Your task to perform on an android device: Open the web browser Image 0: 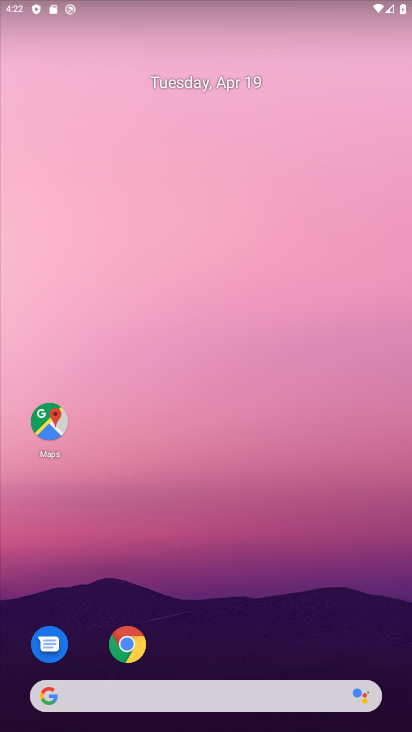
Step 0: click (122, 631)
Your task to perform on an android device: Open the web browser Image 1: 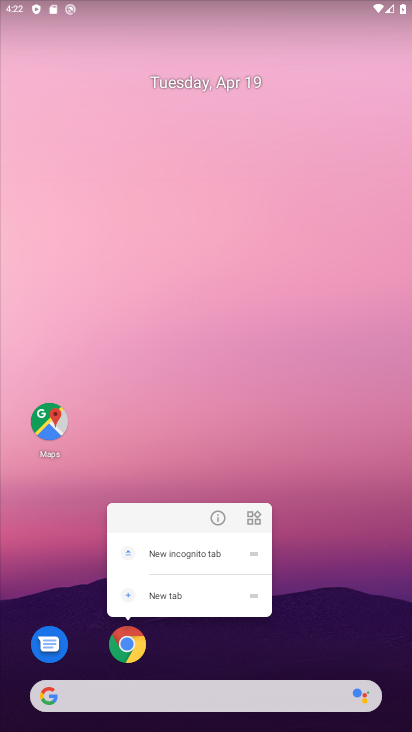
Step 1: click (140, 660)
Your task to perform on an android device: Open the web browser Image 2: 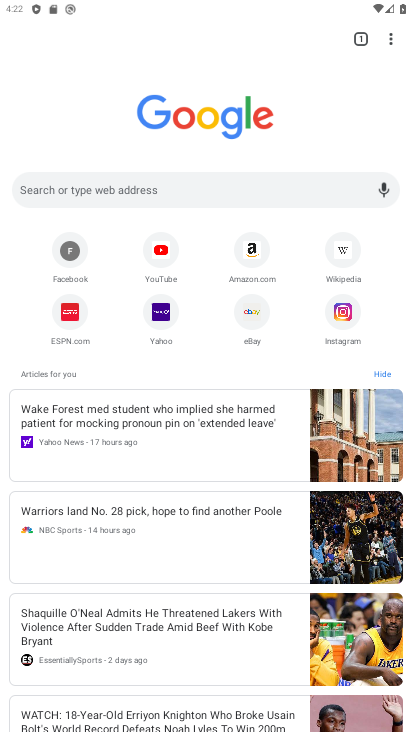
Step 2: task complete